Your task to perform on an android device: Open settings Image 0: 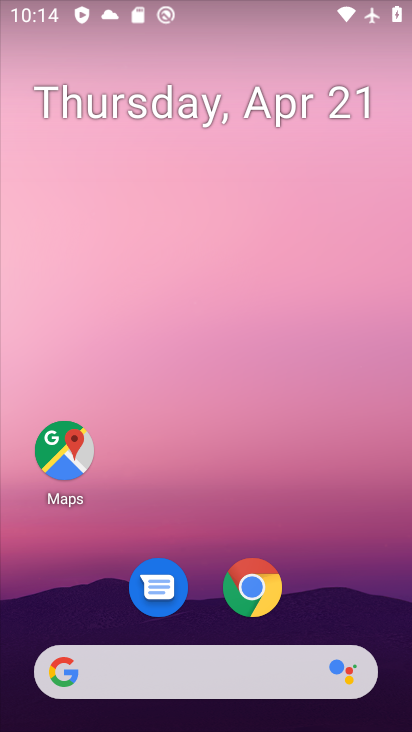
Step 0: drag from (357, 589) to (377, 126)
Your task to perform on an android device: Open settings Image 1: 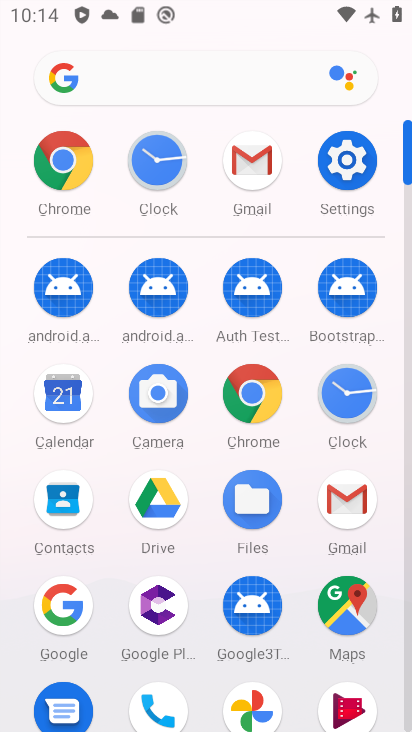
Step 1: click (348, 173)
Your task to perform on an android device: Open settings Image 2: 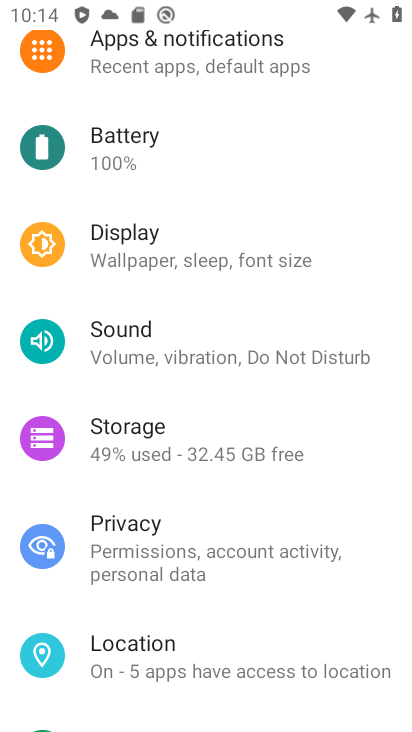
Step 2: task complete